Your task to perform on an android device: Open Android settings Image 0: 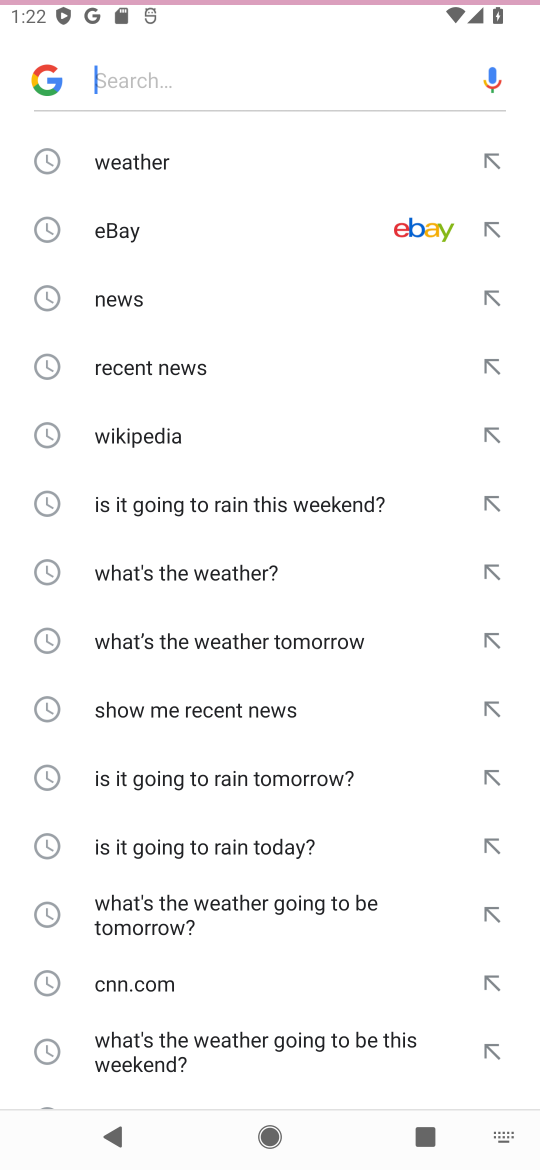
Step 0: press home button
Your task to perform on an android device: Open Android settings Image 1: 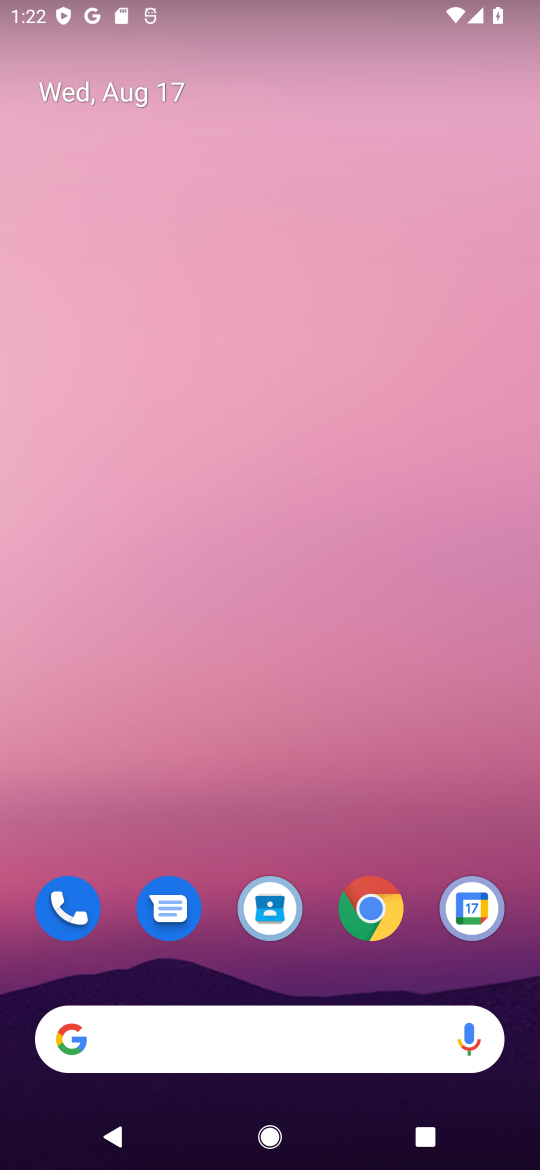
Step 1: drag from (298, 983) to (307, 261)
Your task to perform on an android device: Open Android settings Image 2: 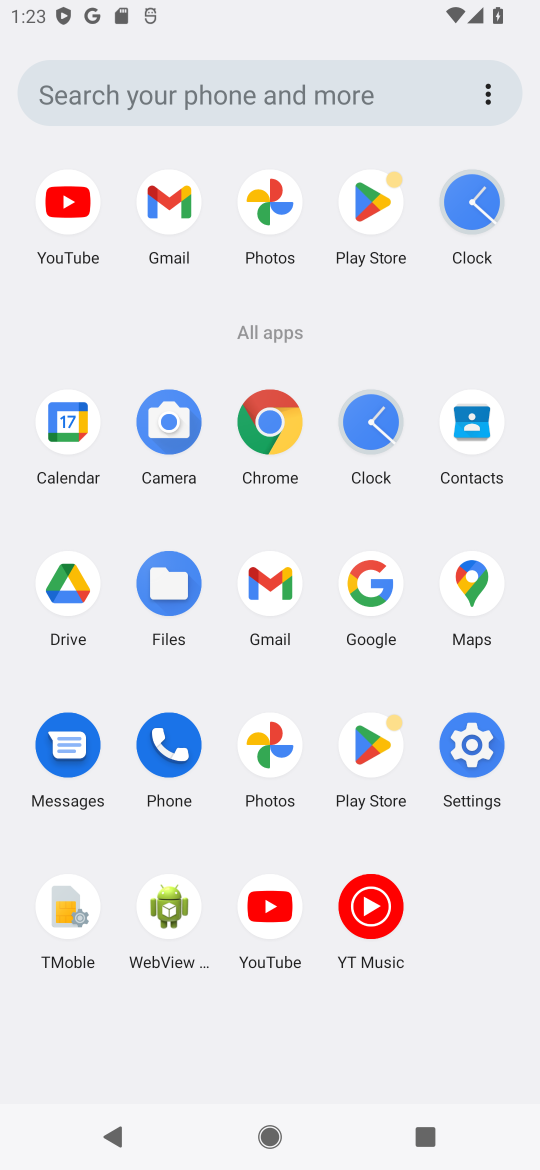
Step 2: click (469, 753)
Your task to perform on an android device: Open Android settings Image 3: 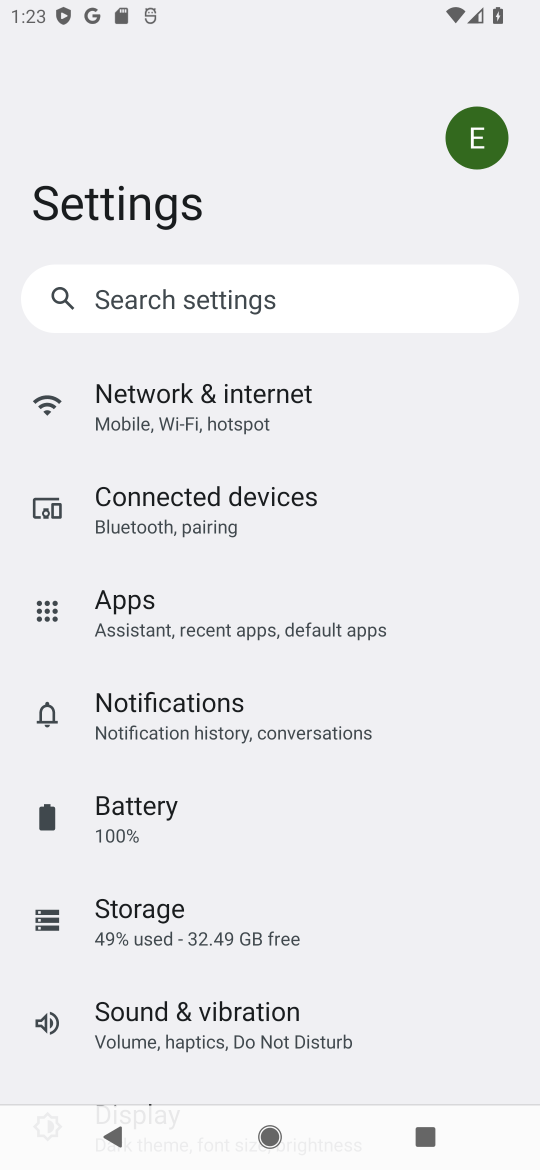
Step 3: task complete